Your task to perform on an android device: Go to Amazon Image 0: 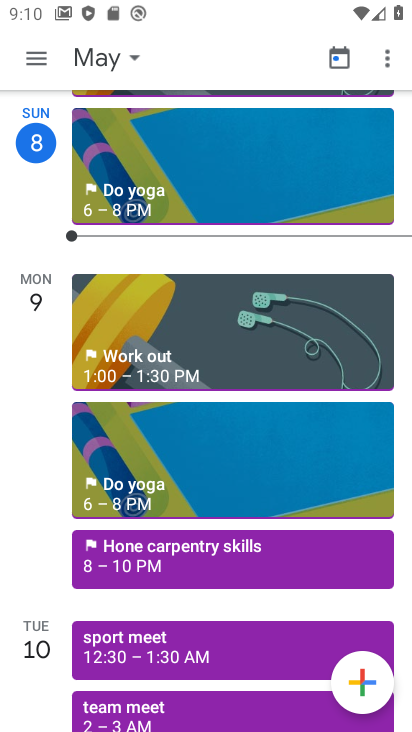
Step 0: press home button
Your task to perform on an android device: Go to Amazon Image 1: 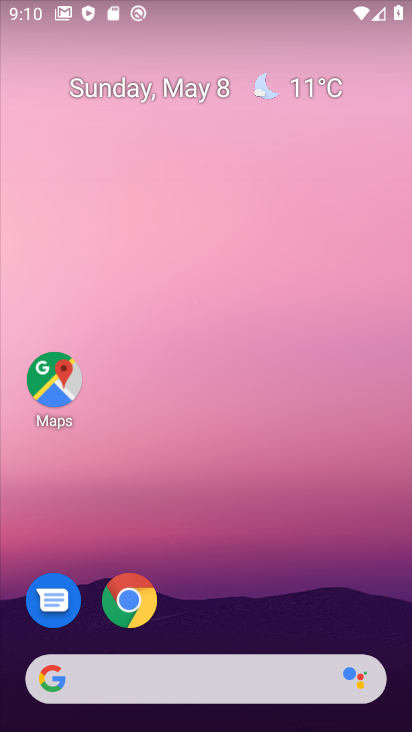
Step 1: drag from (199, 613) to (220, 63)
Your task to perform on an android device: Go to Amazon Image 2: 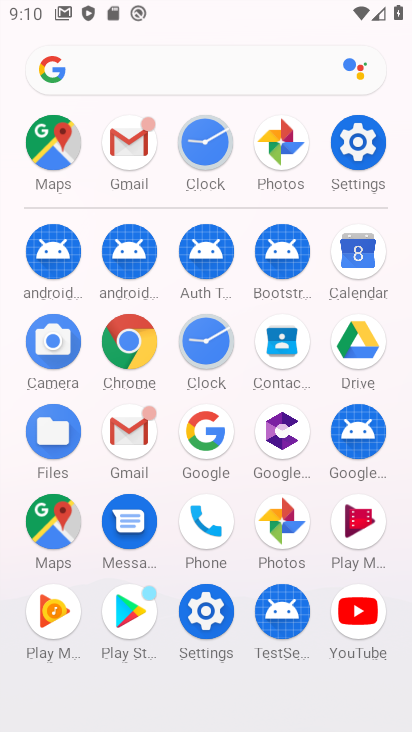
Step 2: click (134, 341)
Your task to perform on an android device: Go to Amazon Image 3: 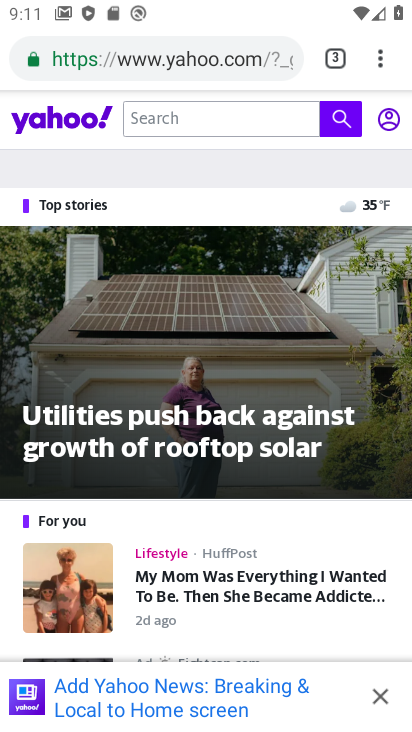
Step 3: click (329, 61)
Your task to perform on an android device: Go to Amazon Image 4: 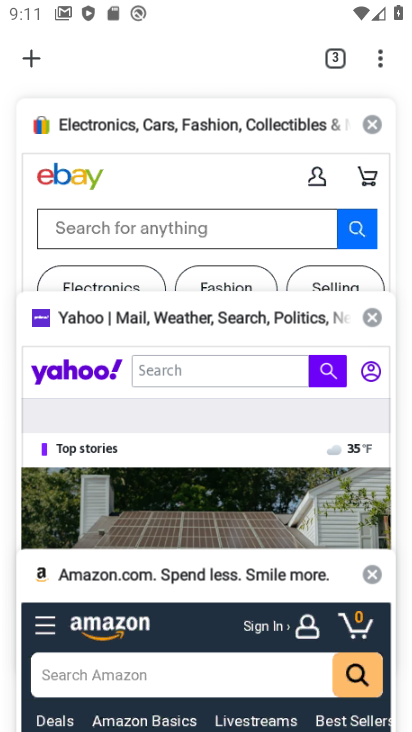
Step 4: click (30, 68)
Your task to perform on an android device: Go to Amazon Image 5: 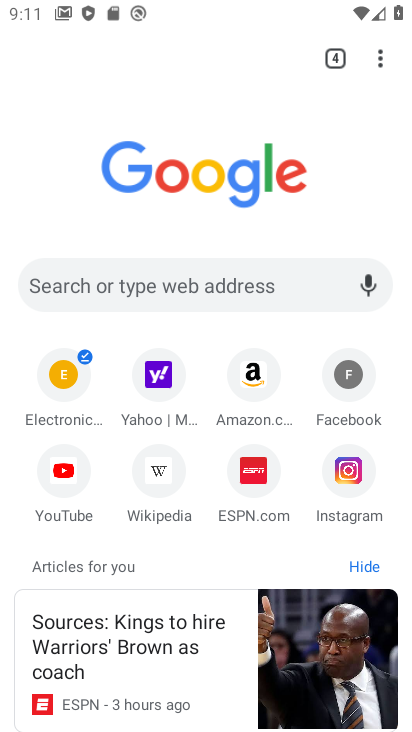
Step 5: click (259, 379)
Your task to perform on an android device: Go to Amazon Image 6: 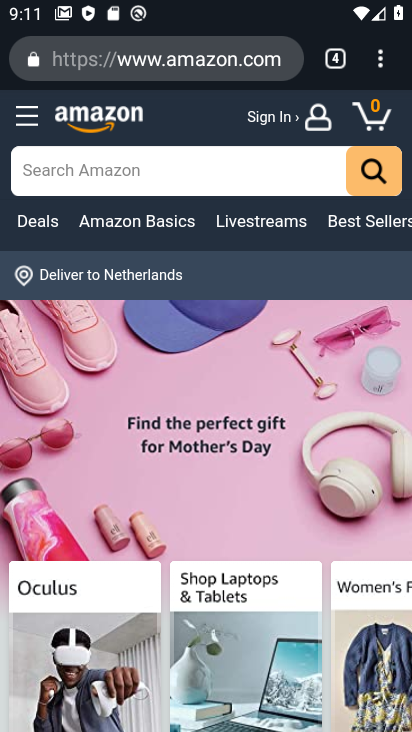
Step 6: click (259, 379)
Your task to perform on an android device: Go to Amazon Image 7: 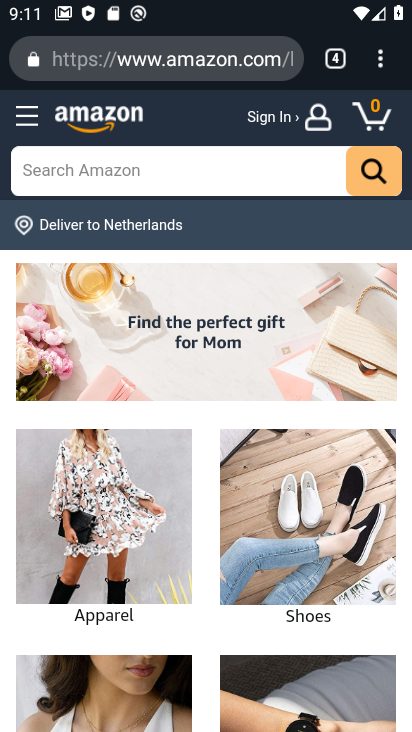
Step 7: task complete